Your task to perform on an android device: Go to settings Image 0: 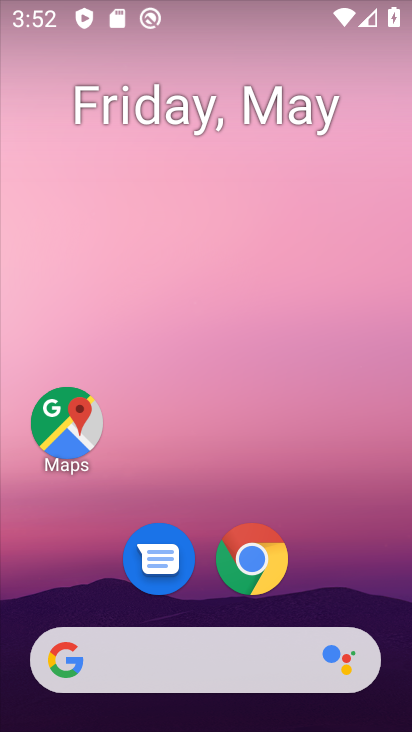
Step 0: drag from (342, 590) to (348, 493)
Your task to perform on an android device: Go to settings Image 1: 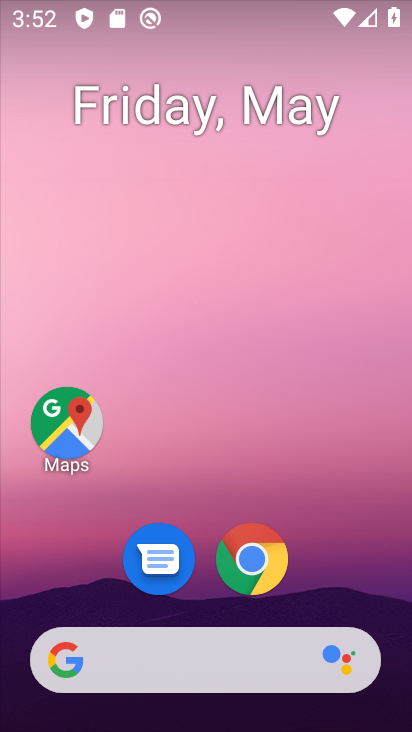
Step 1: drag from (383, 599) to (364, 154)
Your task to perform on an android device: Go to settings Image 2: 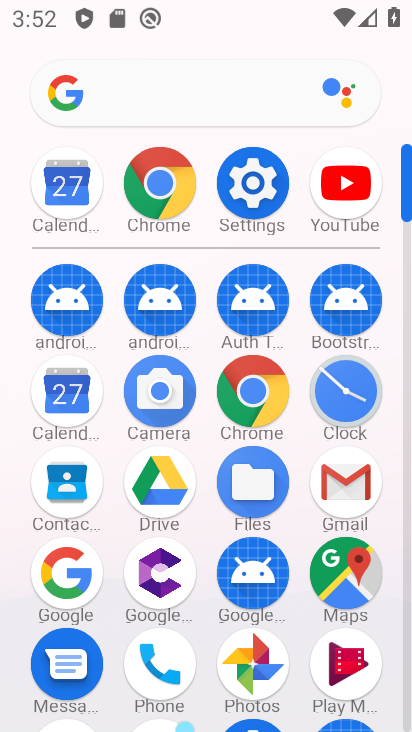
Step 2: click (241, 179)
Your task to perform on an android device: Go to settings Image 3: 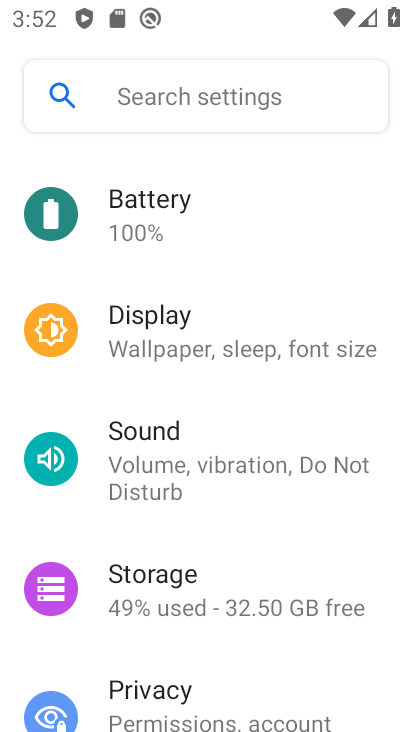
Step 3: task complete